Your task to perform on an android device: snooze an email in the gmail app Image 0: 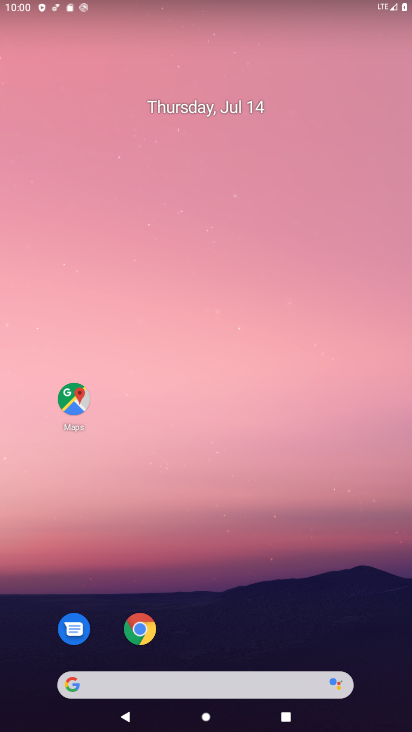
Step 0: drag from (259, 603) to (254, 124)
Your task to perform on an android device: snooze an email in the gmail app Image 1: 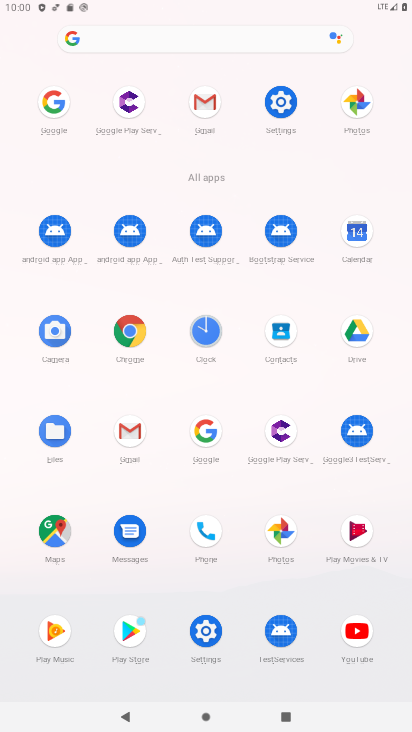
Step 1: click (208, 114)
Your task to perform on an android device: snooze an email in the gmail app Image 2: 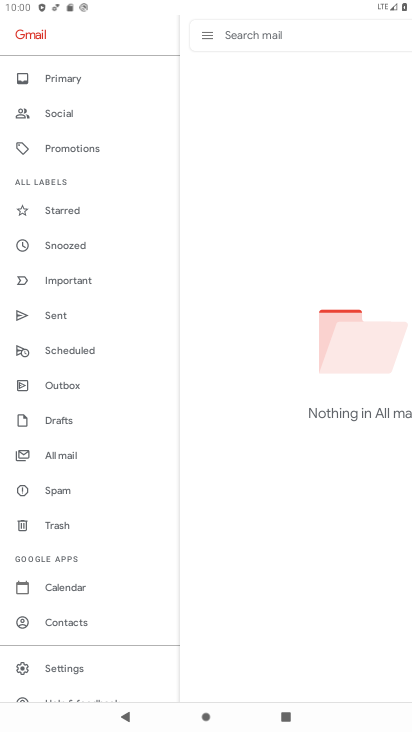
Step 2: click (64, 447)
Your task to perform on an android device: snooze an email in the gmail app Image 3: 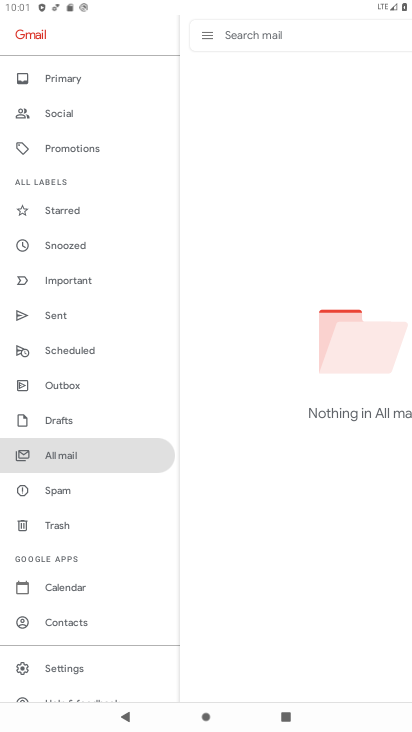
Step 3: task complete